Your task to perform on an android device: delete location history Image 0: 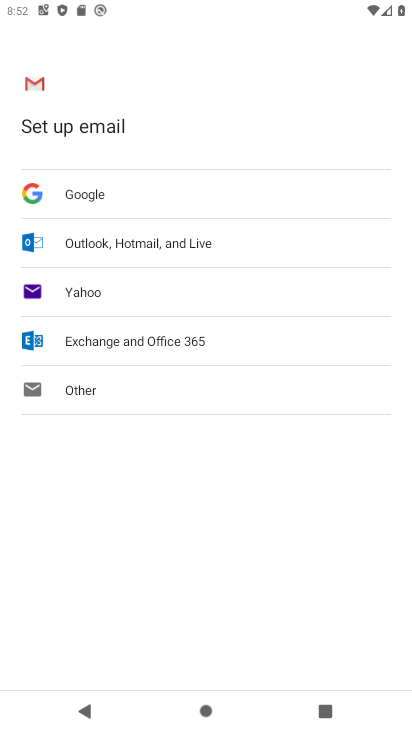
Step 0: press home button
Your task to perform on an android device: delete location history Image 1: 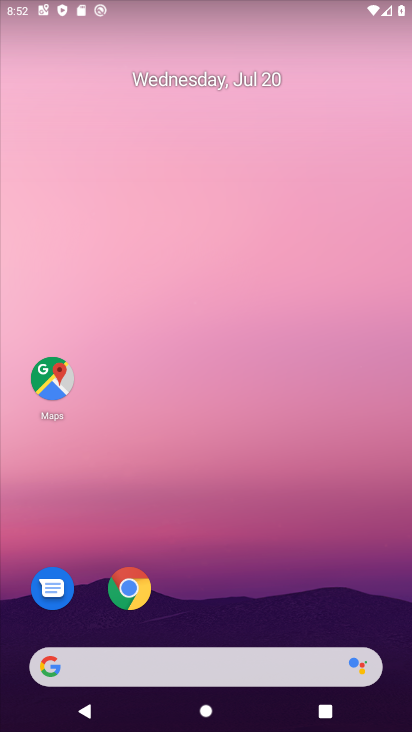
Step 1: click (74, 369)
Your task to perform on an android device: delete location history Image 2: 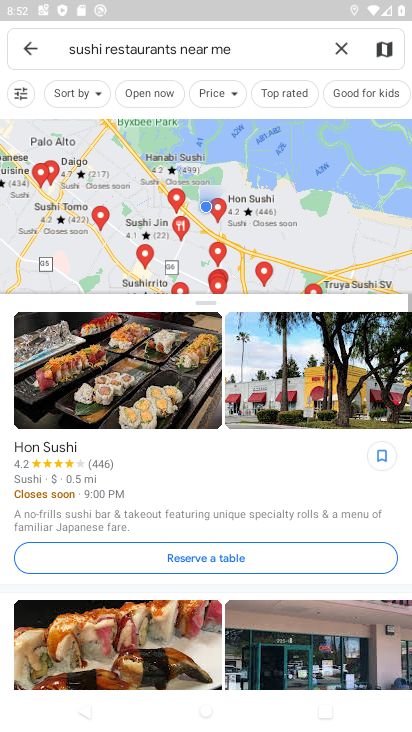
Step 2: click (29, 38)
Your task to perform on an android device: delete location history Image 3: 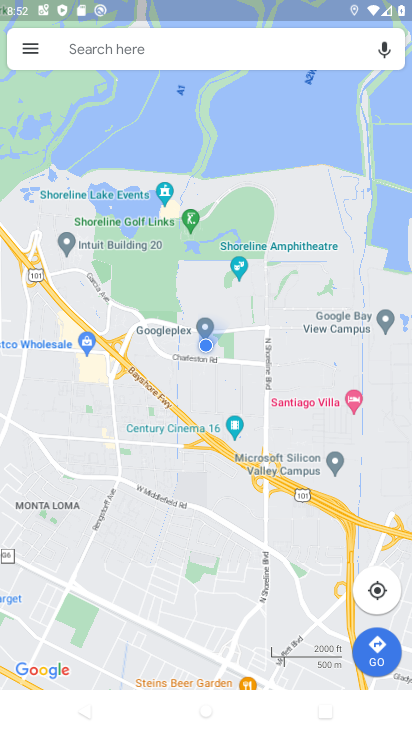
Step 3: click (29, 38)
Your task to perform on an android device: delete location history Image 4: 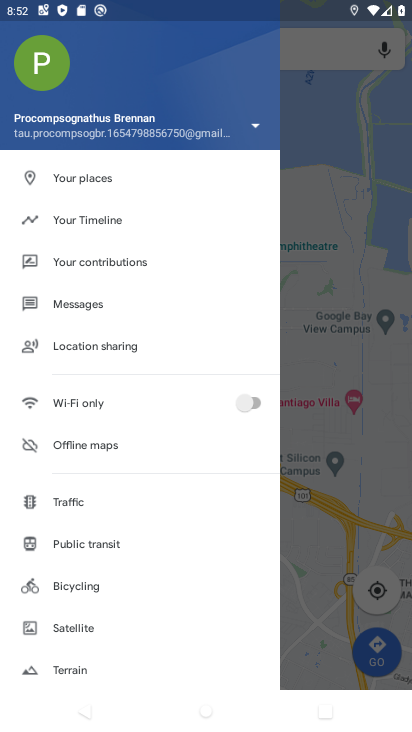
Step 4: click (135, 222)
Your task to perform on an android device: delete location history Image 5: 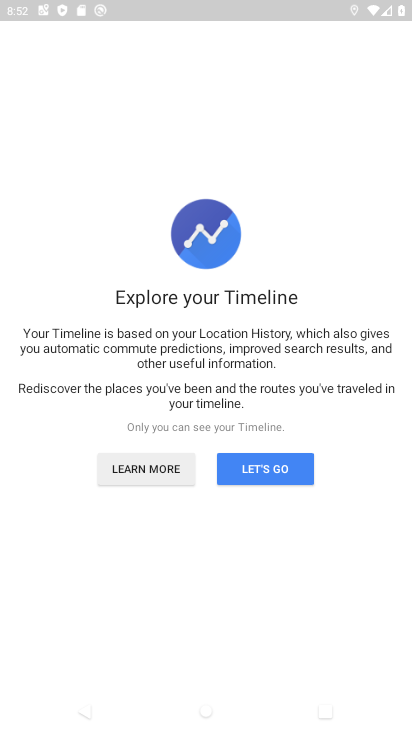
Step 5: click (256, 460)
Your task to perform on an android device: delete location history Image 6: 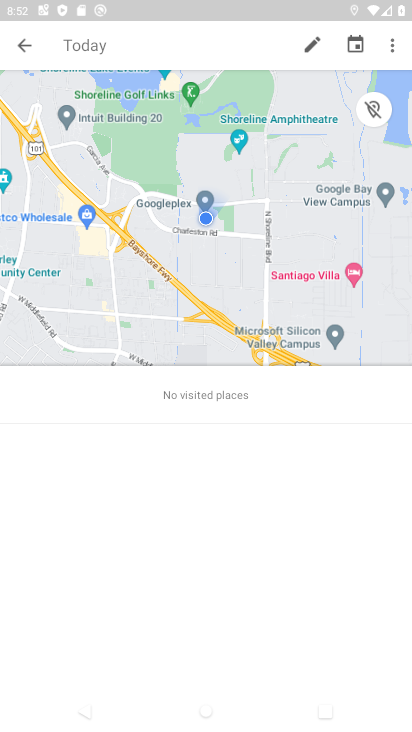
Step 6: click (397, 58)
Your task to perform on an android device: delete location history Image 7: 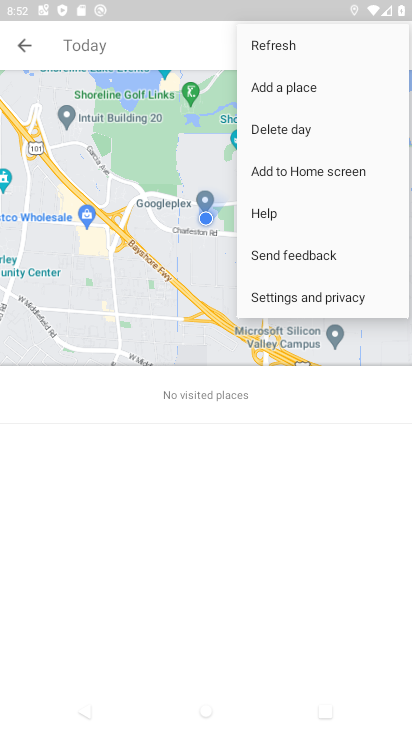
Step 7: click (283, 288)
Your task to perform on an android device: delete location history Image 8: 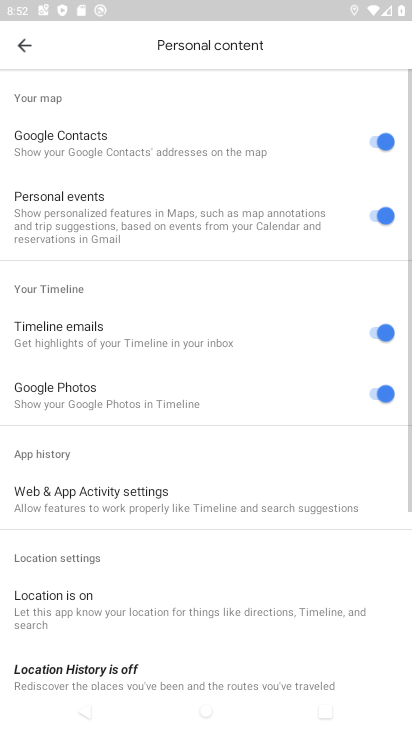
Step 8: drag from (121, 617) to (189, 168)
Your task to perform on an android device: delete location history Image 9: 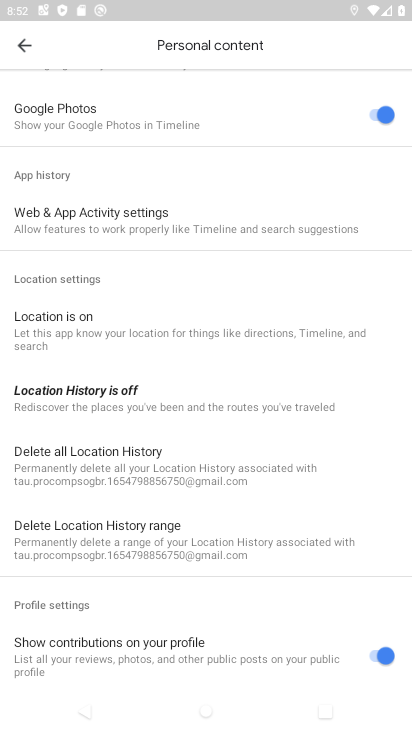
Step 9: click (156, 471)
Your task to perform on an android device: delete location history Image 10: 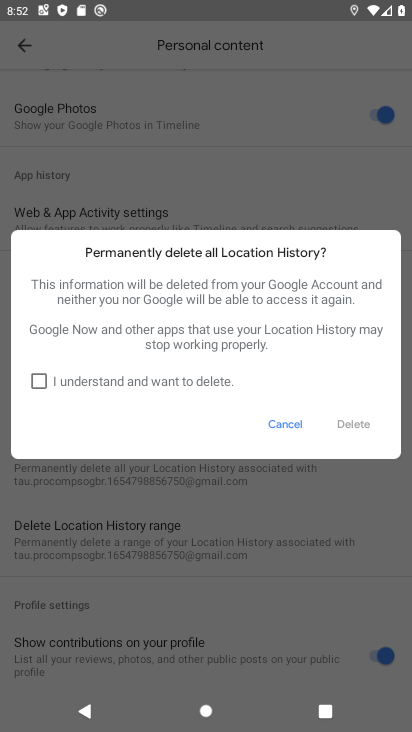
Step 10: click (35, 378)
Your task to perform on an android device: delete location history Image 11: 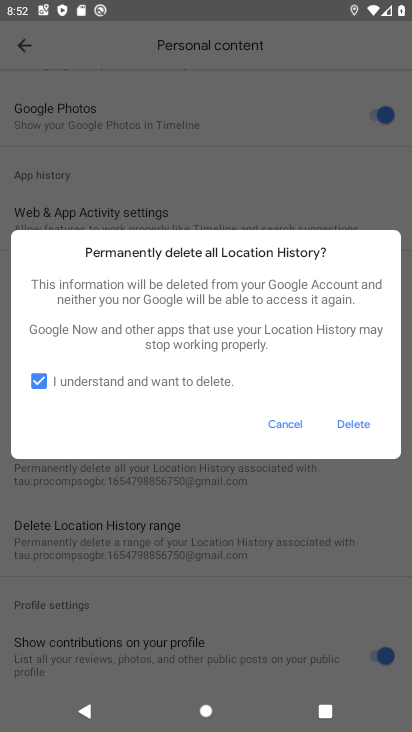
Step 11: click (376, 428)
Your task to perform on an android device: delete location history Image 12: 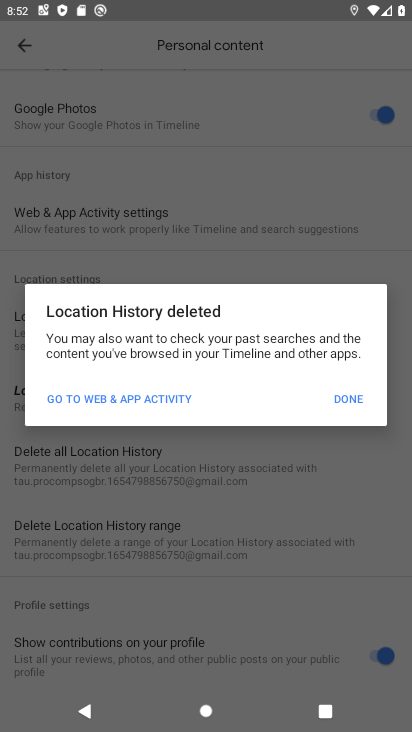
Step 12: click (339, 416)
Your task to perform on an android device: delete location history Image 13: 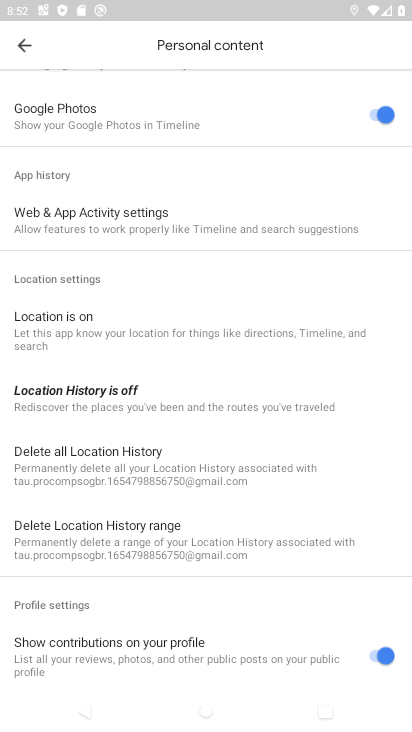
Step 13: task complete